Your task to perform on an android device: toggle location history Image 0: 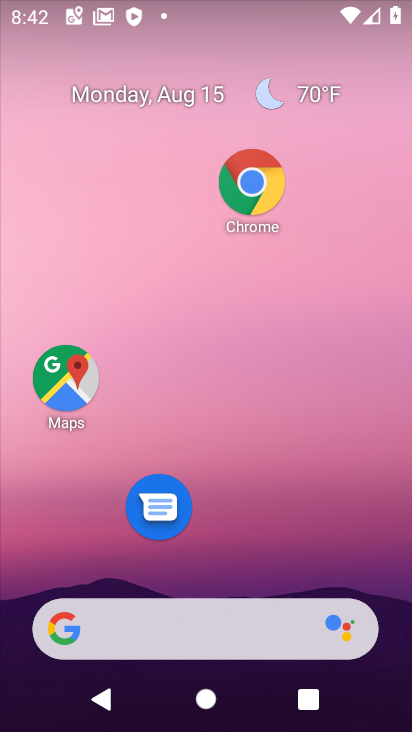
Step 0: drag from (233, 486) to (181, 54)
Your task to perform on an android device: toggle location history Image 1: 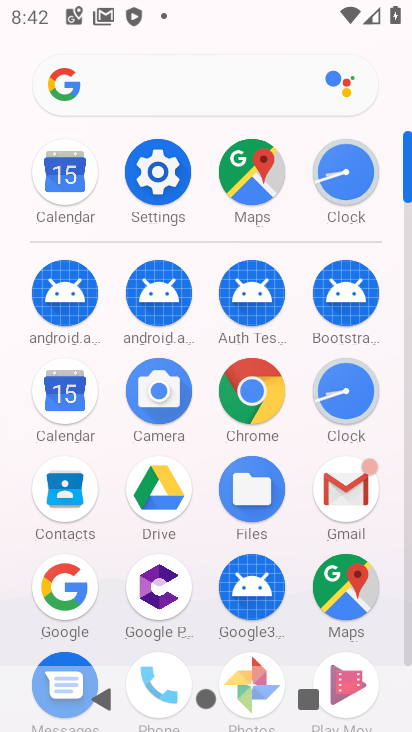
Step 1: click (264, 432)
Your task to perform on an android device: toggle location history Image 2: 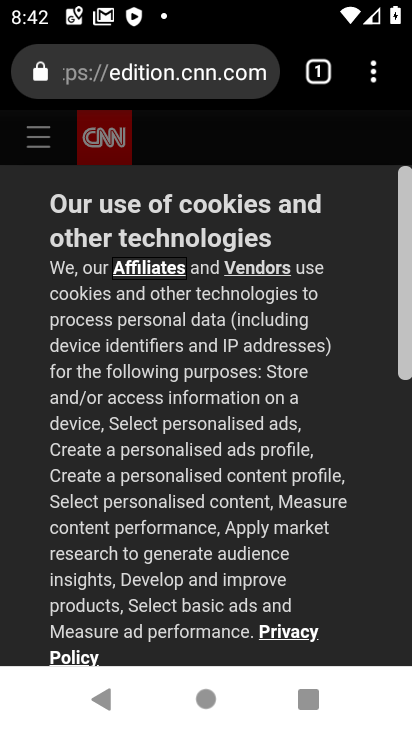
Step 2: click (381, 75)
Your task to perform on an android device: toggle location history Image 3: 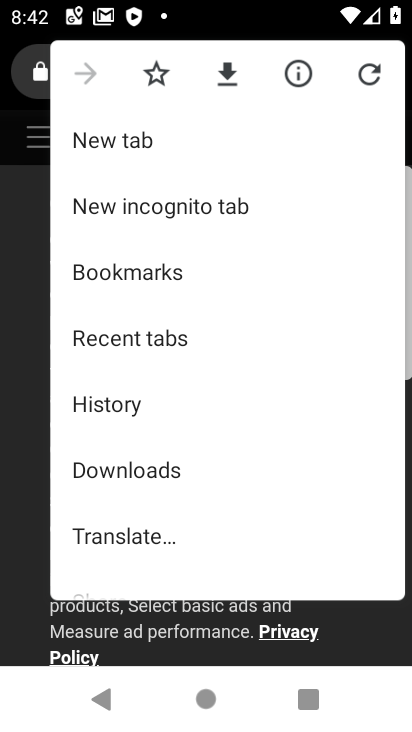
Step 3: drag from (166, 544) to (159, 306)
Your task to perform on an android device: toggle location history Image 4: 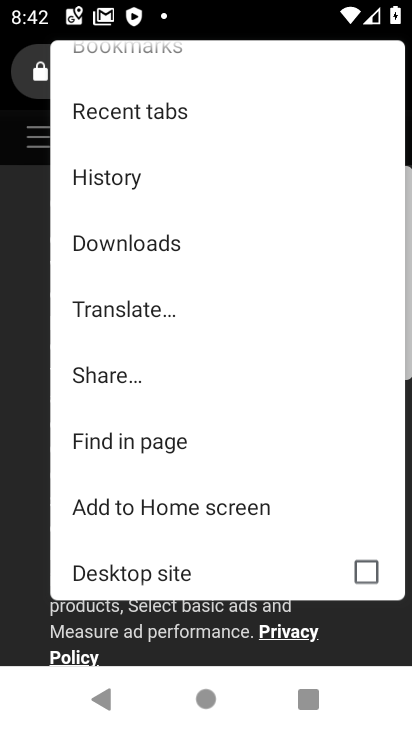
Step 4: click (228, 182)
Your task to perform on an android device: toggle location history Image 5: 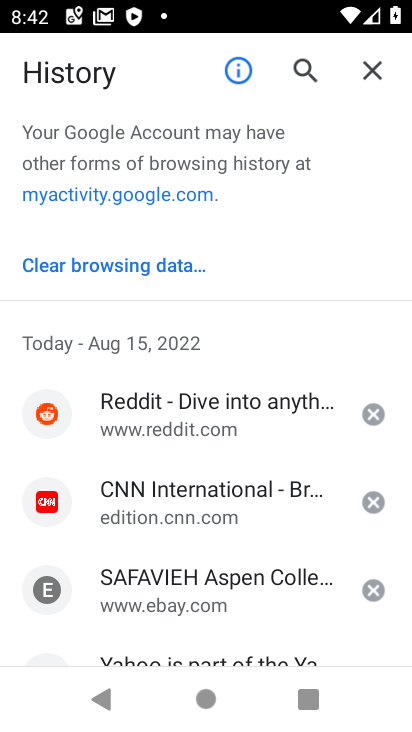
Step 5: click (114, 267)
Your task to perform on an android device: toggle location history Image 6: 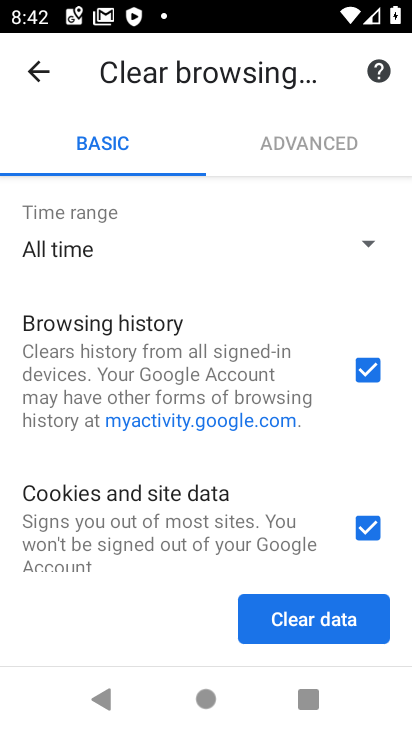
Step 6: click (312, 616)
Your task to perform on an android device: toggle location history Image 7: 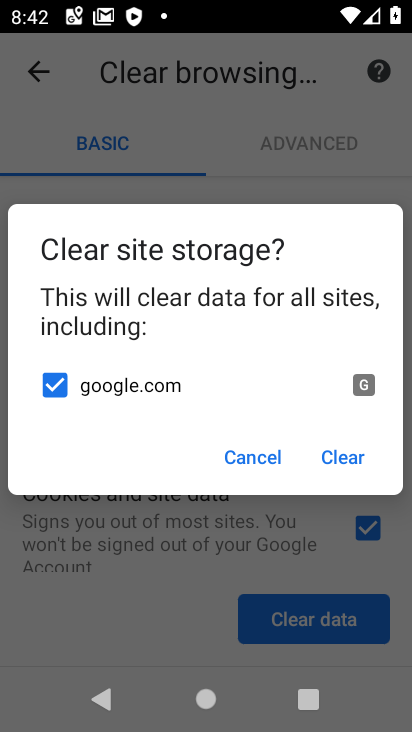
Step 7: click (368, 468)
Your task to perform on an android device: toggle location history Image 8: 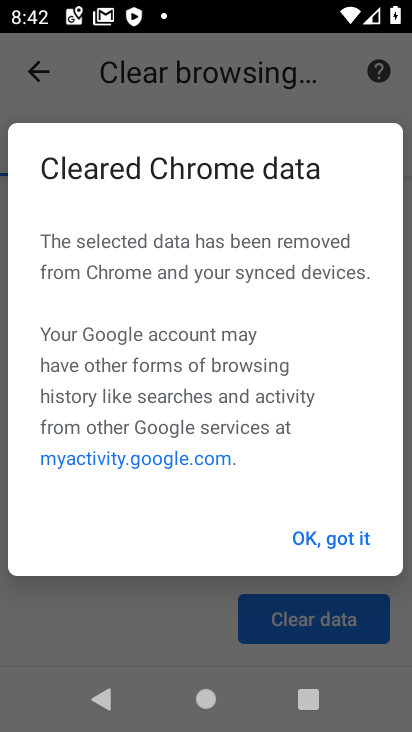
Step 8: task complete